Your task to perform on an android device: open a bookmark in the chrome app Image 0: 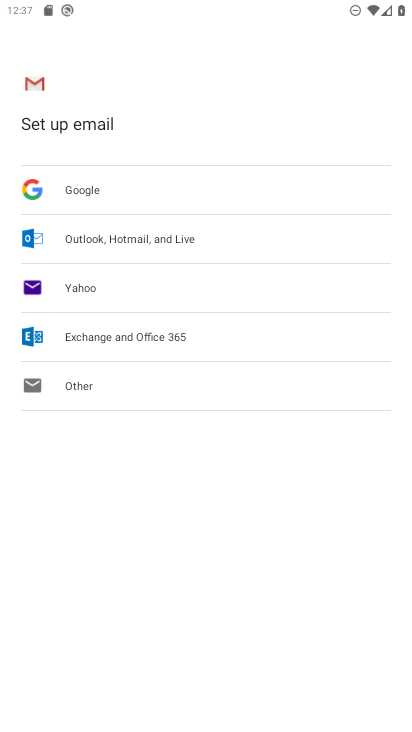
Step 0: press home button
Your task to perform on an android device: open a bookmark in the chrome app Image 1: 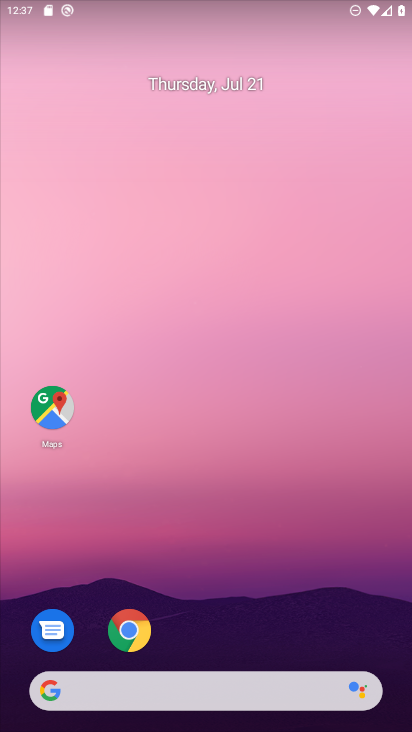
Step 1: click (127, 630)
Your task to perform on an android device: open a bookmark in the chrome app Image 2: 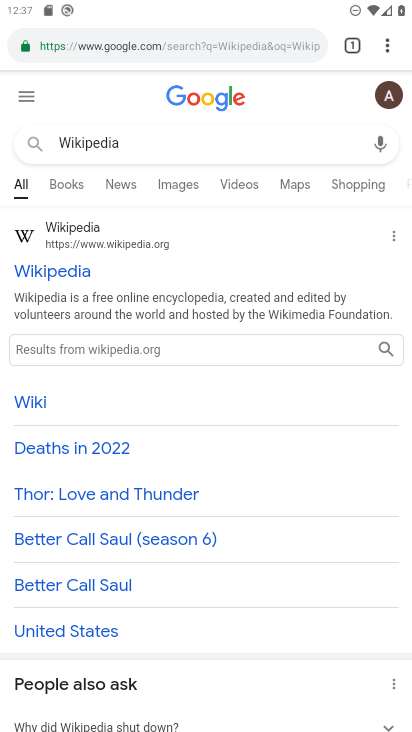
Step 2: click (387, 50)
Your task to perform on an android device: open a bookmark in the chrome app Image 3: 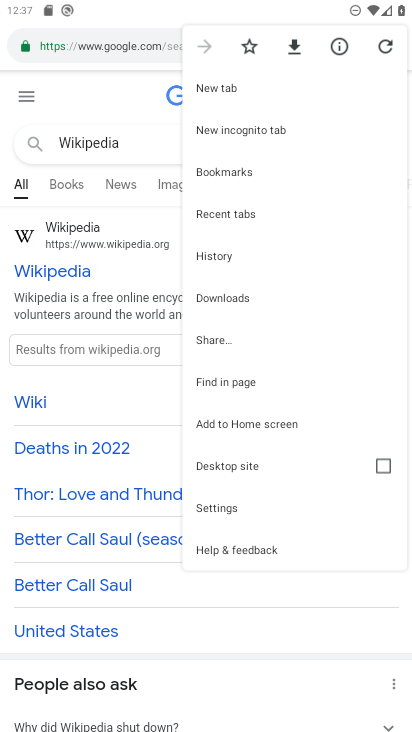
Step 3: click (212, 512)
Your task to perform on an android device: open a bookmark in the chrome app Image 4: 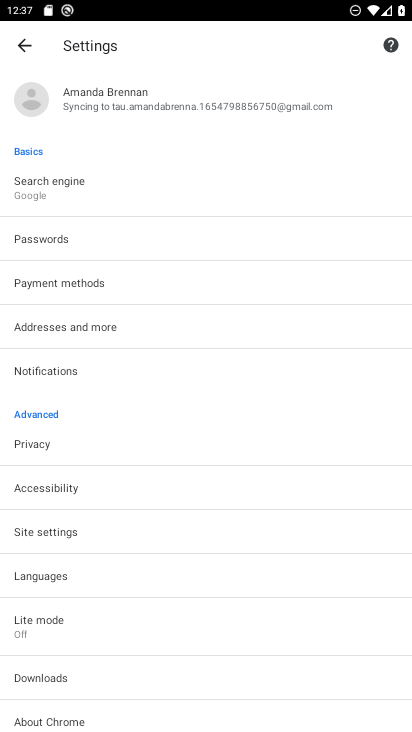
Step 4: drag from (252, 690) to (277, 363)
Your task to perform on an android device: open a bookmark in the chrome app Image 5: 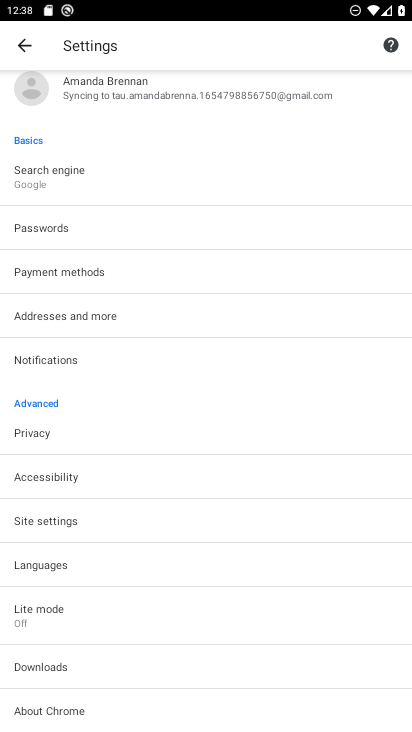
Step 5: click (22, 41)
Your task to perform on an android device: open a bookmark in the chrome app Image 6: 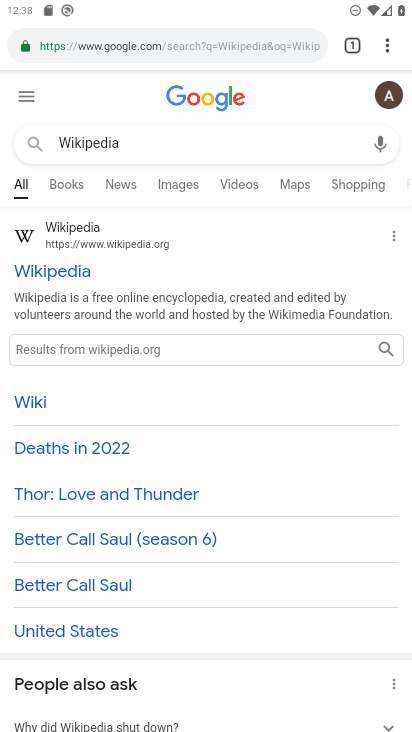
Step 6: click (386, 48)
Your task to perform on an android device: open a bookmark in the chrome app Image 7: 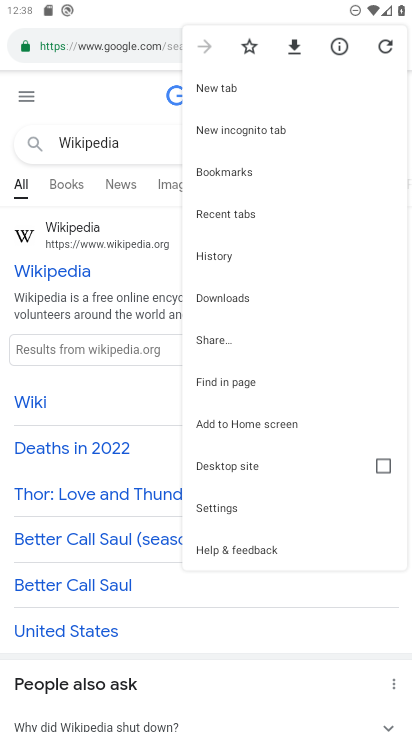
Step 7: click (220, 177)
Your task to perform on an android device: open a bookmark in the chrome app Image 8: 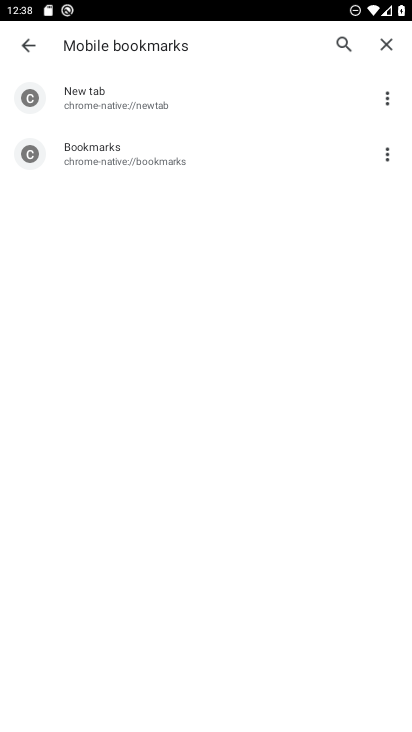
Step 8: click (96, 143)
Your task to perform on an android device: open a bookmark in the chrome app Image 9: 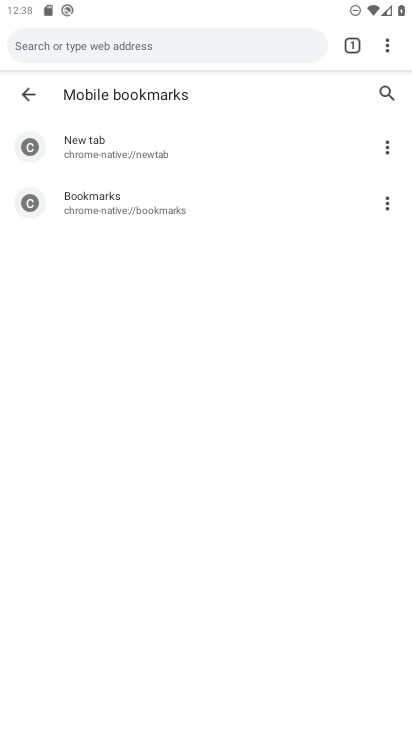
Step 9: click (86, 206)
Your task to perform on an android device: open a bookmark in the chrome app Image 10: 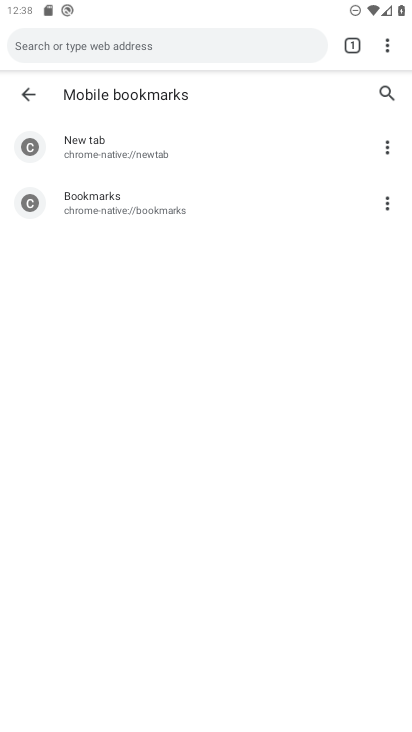
Step 10: task complete